Your task to perform on an android device: remove spam from my inbox in the gmail app Image 0: 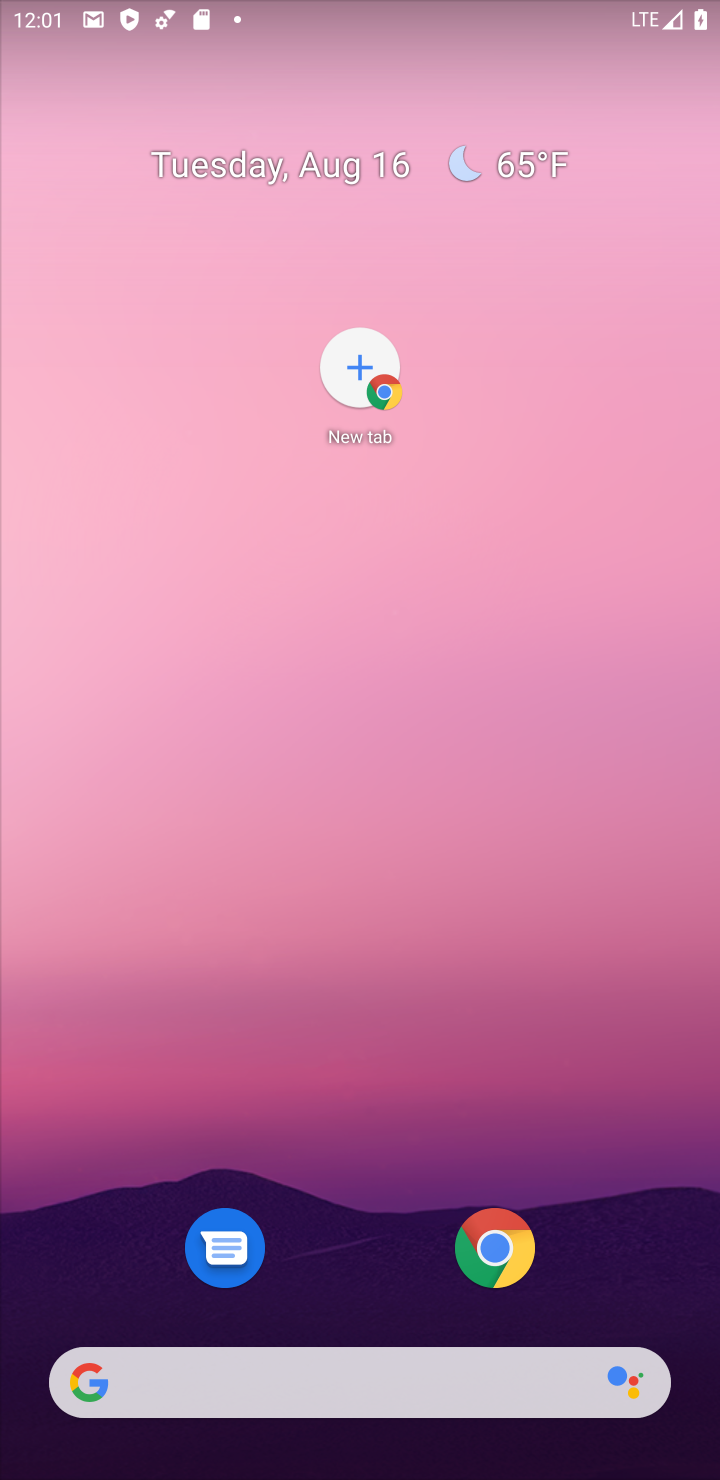
Step 0: drag from (344, 1297) to (242, 32)
Your task to perform on an android device: remove spam from my inbox in the gmail app Image 1: 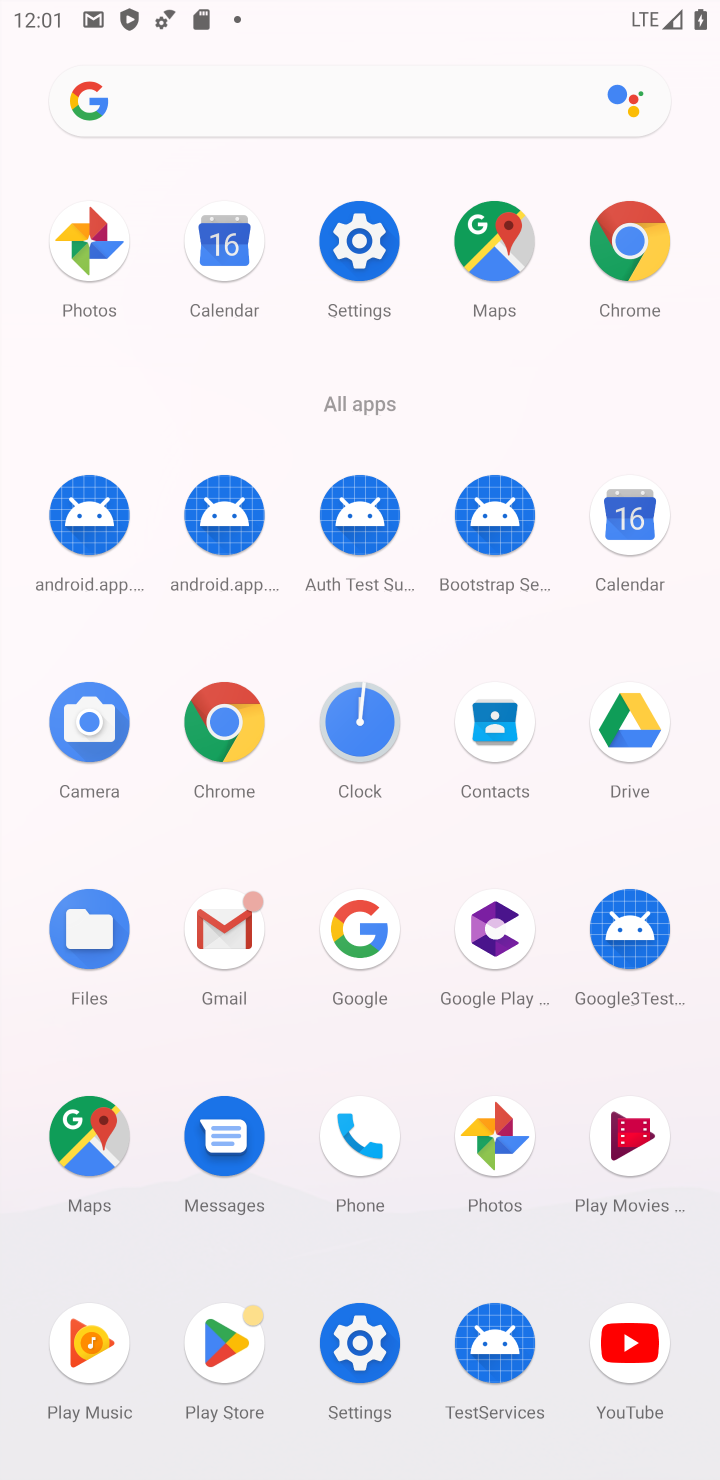
Step 1: click (254, 923)
Your task to perform on an android device: remove spam from my inbox in the gmail app Image 2: 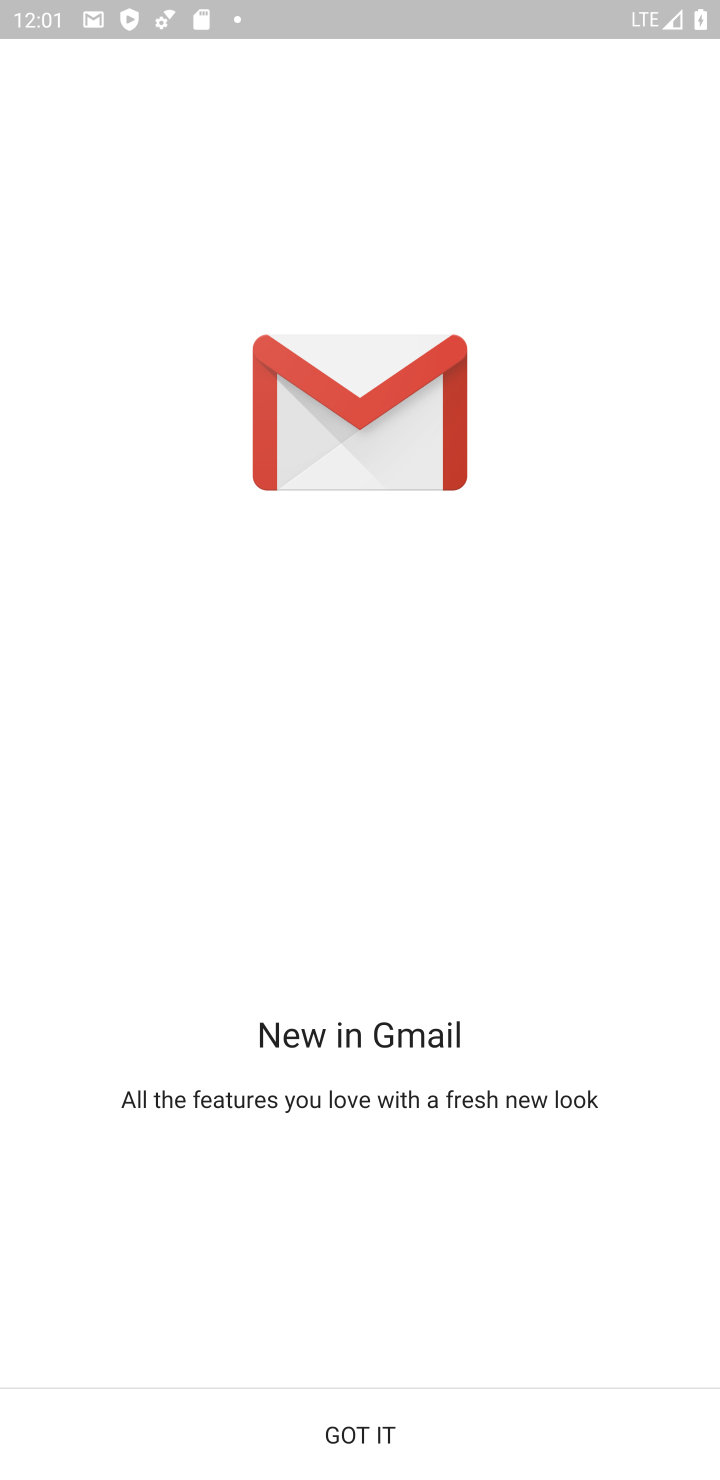
Step 2: click (340, 1443)
Your task to perform on an android device: remove spam from my inbox in the gmail app Image 3: 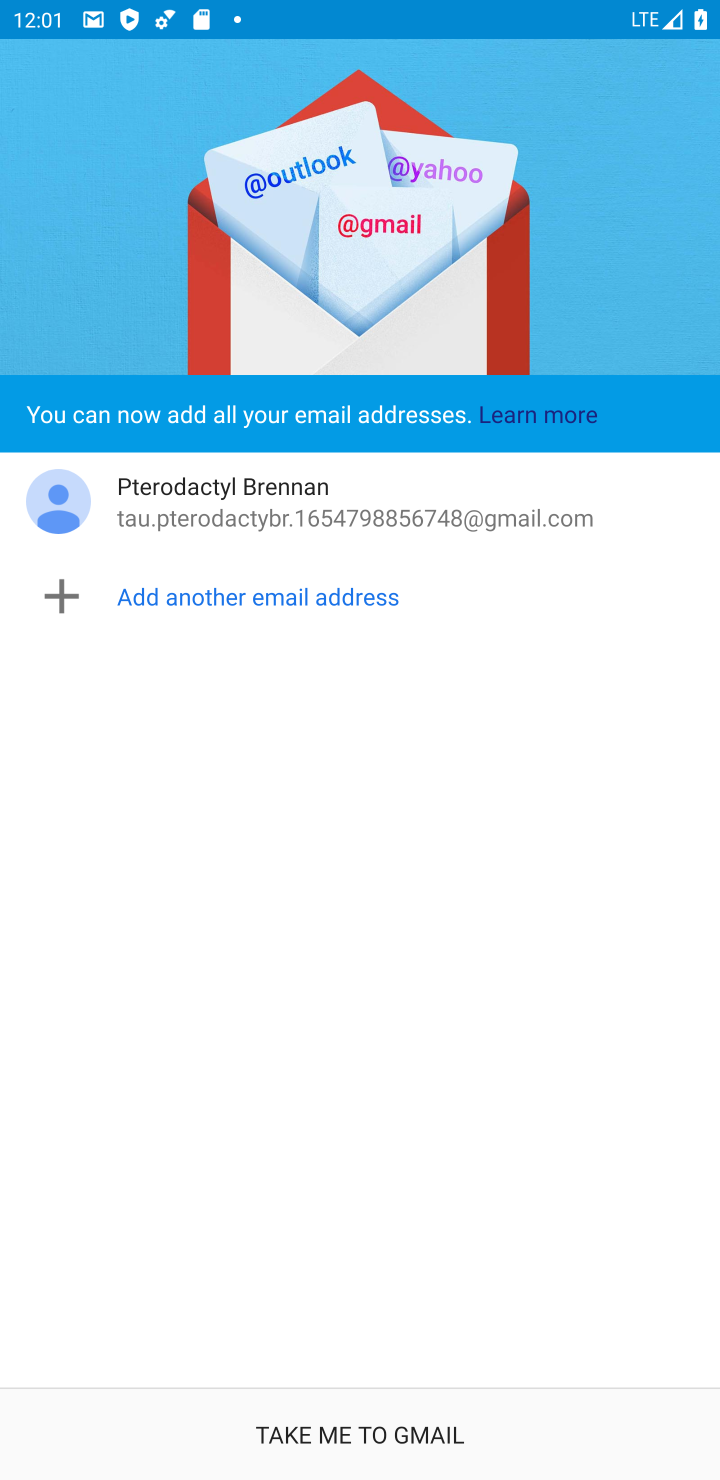
Step 3: click (340, 1443)
Your task to perform on an android device: remove spam from my inbox in the gmail app Image 4: 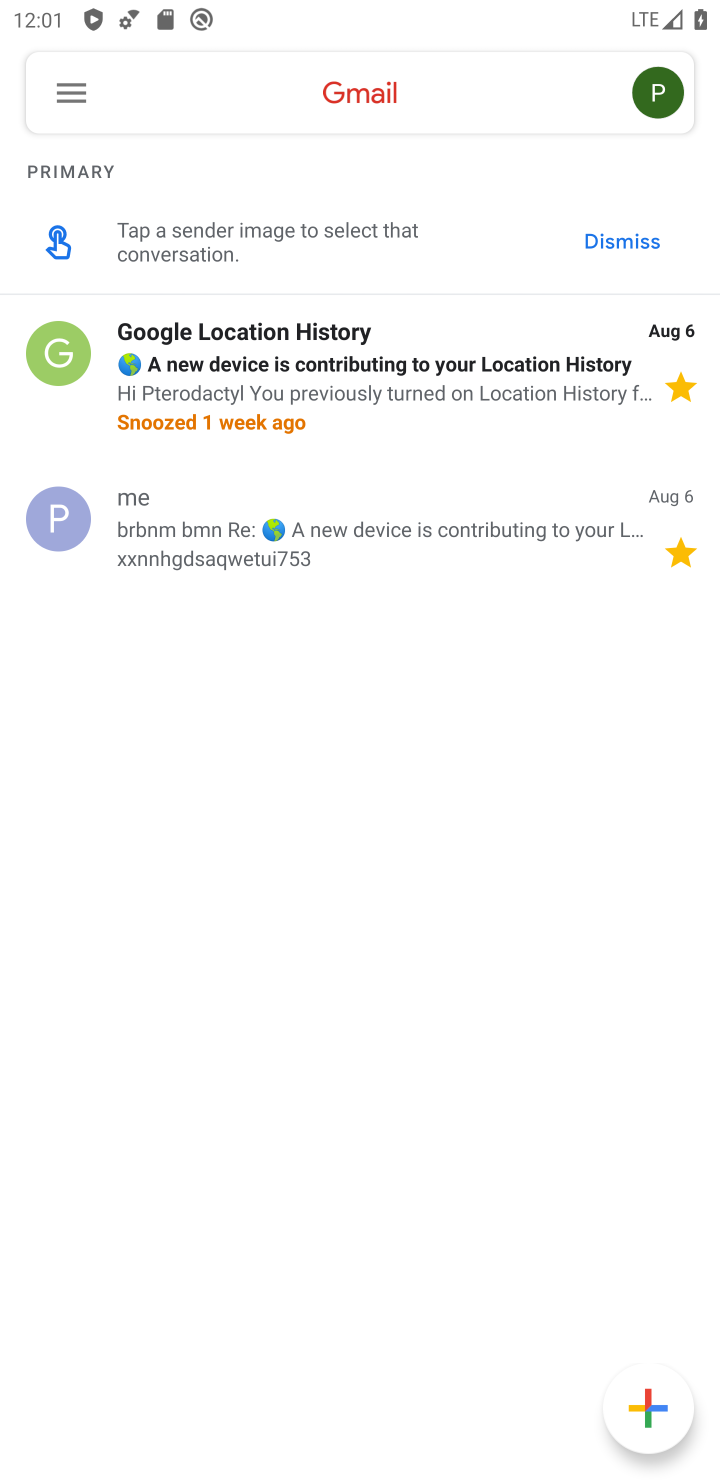
Step 4: click (58, 118)
Your task to perform on an android device: remove spam from my inbox in the gmail app Image 5: 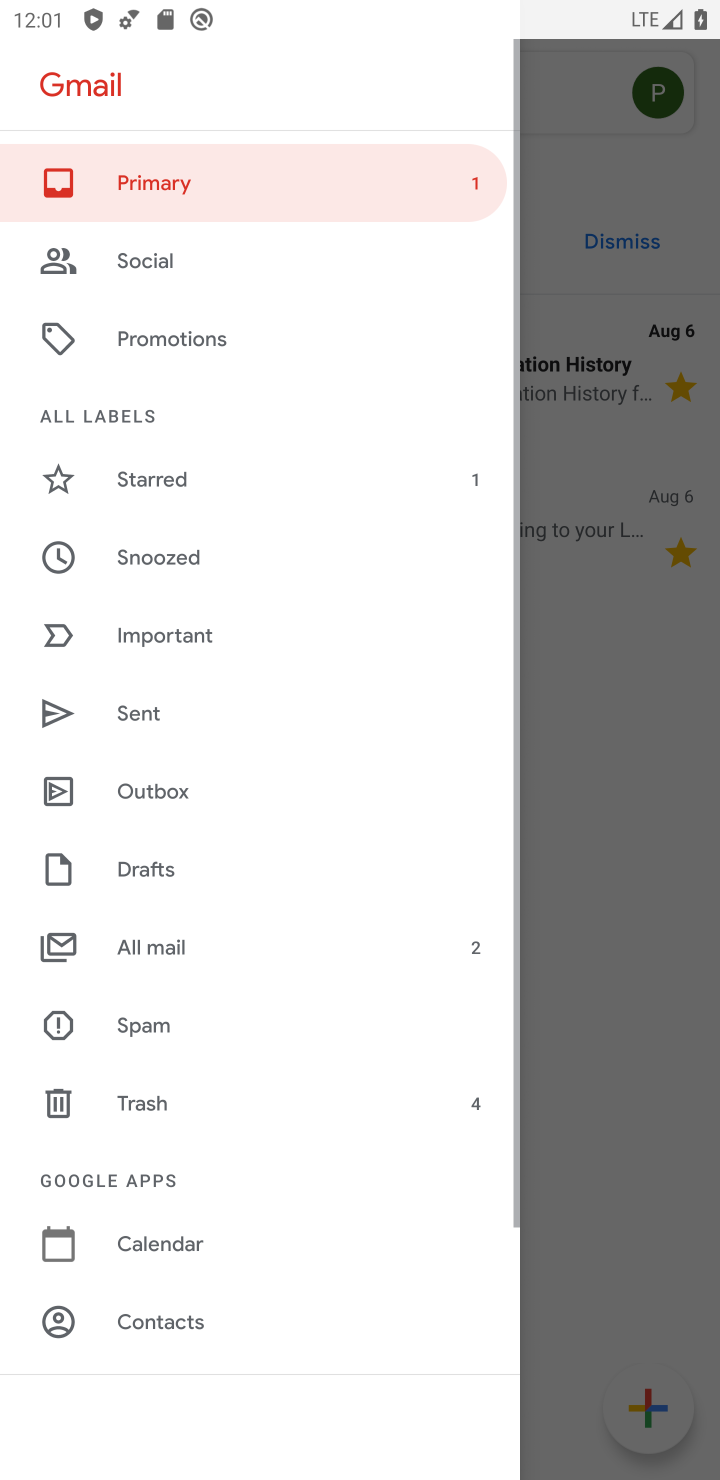
Step 5: click (142, 402)
Your task to perform on an android device: remove spam from my inbox in the gmail app Image 6: 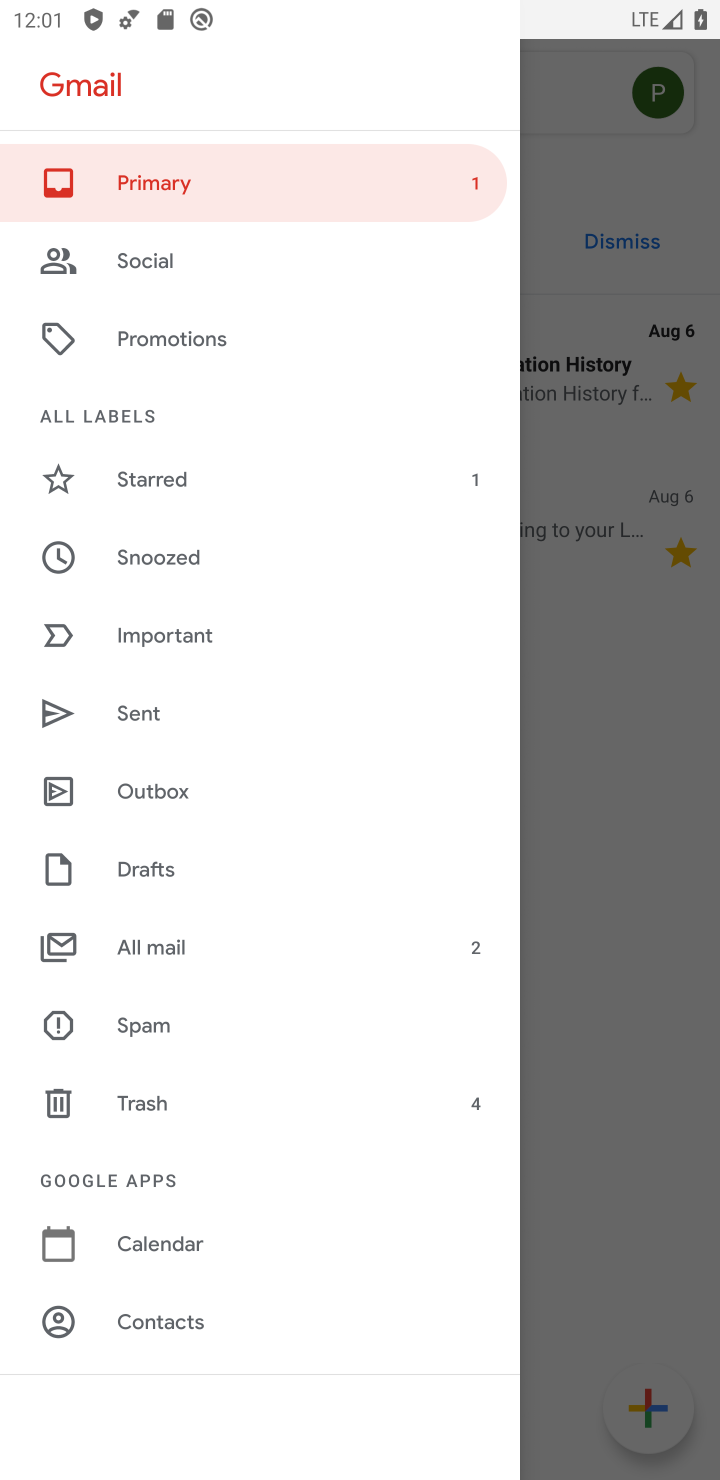
Step 6: task complete